Your task to perform on an android device: move a message to another label in the gmail app Image 0: 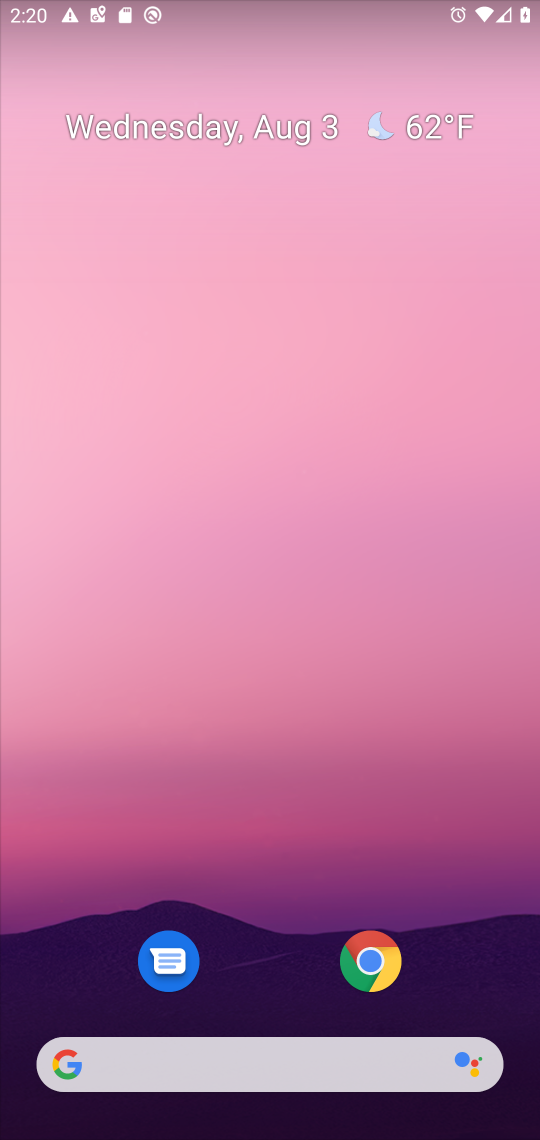
Step 0: drag from (288, 970) to (269, 24)
Your task to perform on an android device: move a message to another label in the gmail app Image 1: 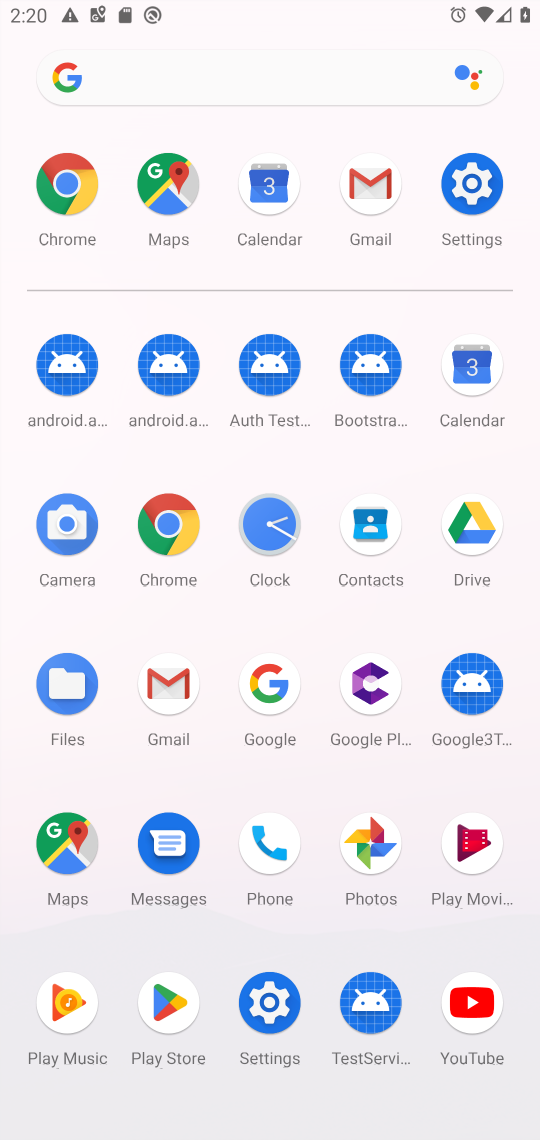
Step 1: click (361, 191)
Your task to perform on an android device: move a message to another label in the gmail app Image 2: 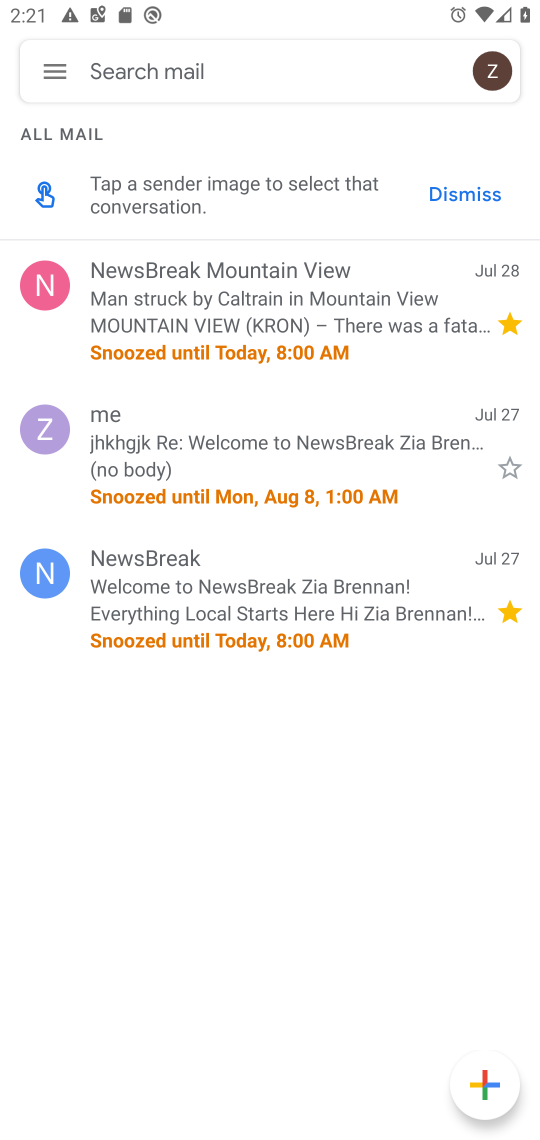
Step 2: click (255, 310)
Your task to perform on an android device: move a message to another label in the gmail app Image 3: 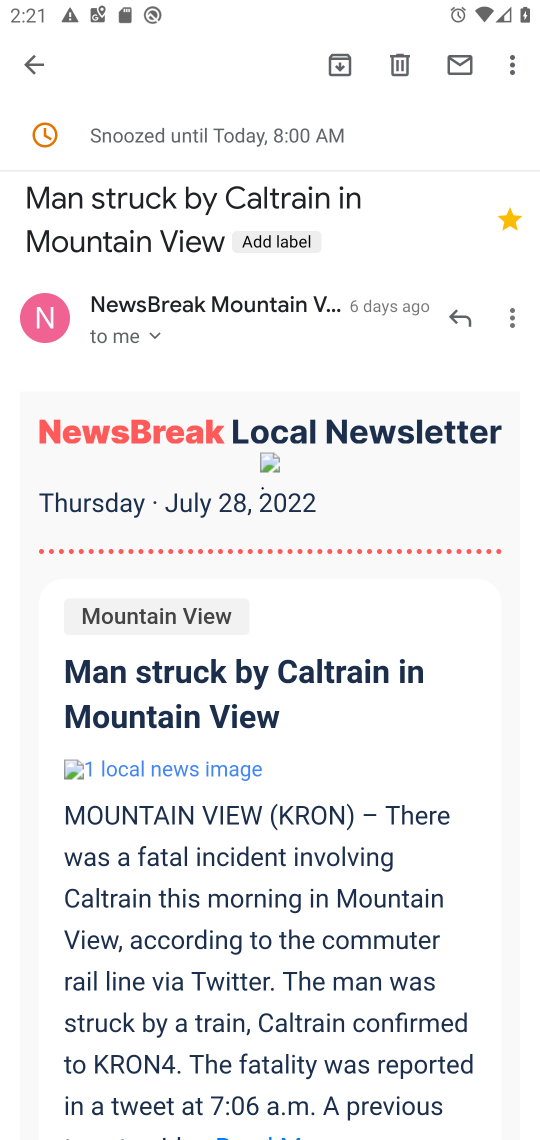
Step 3: click (513, 68)
Your task to perform on an android device: move a message to another label in the gmail app Image 4: 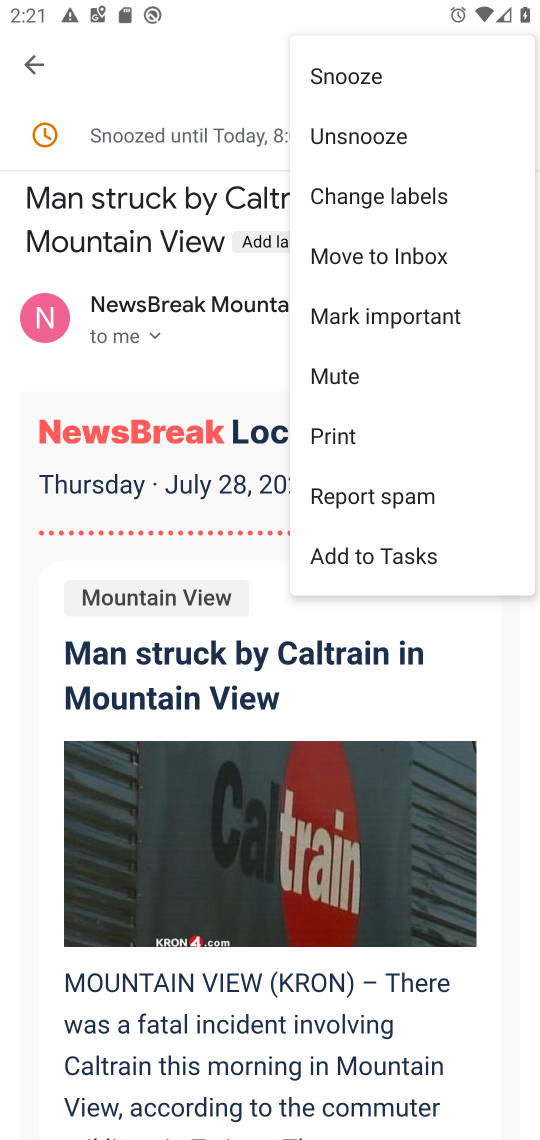
Step 4: click (344, 267)
Your task to perform on an android device: move a message to another label in the gmail app Image 5: 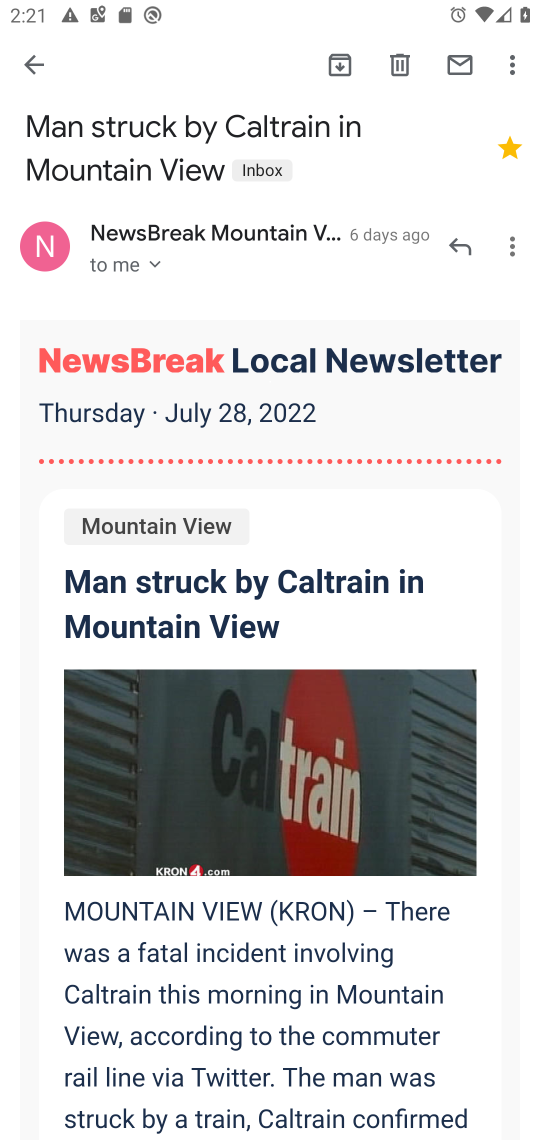
Step 5: task complete